Your task to perform on an android device: Turn on the flashlight Image 0: 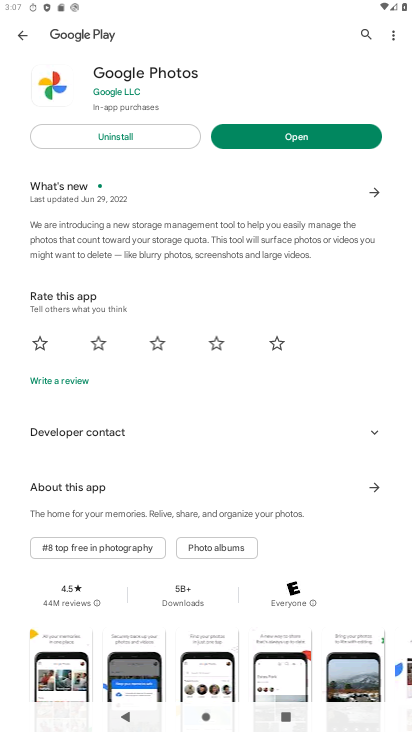
Step 0: press home button
Your task to perform on an android device: Turn on the flashlight Image 1: 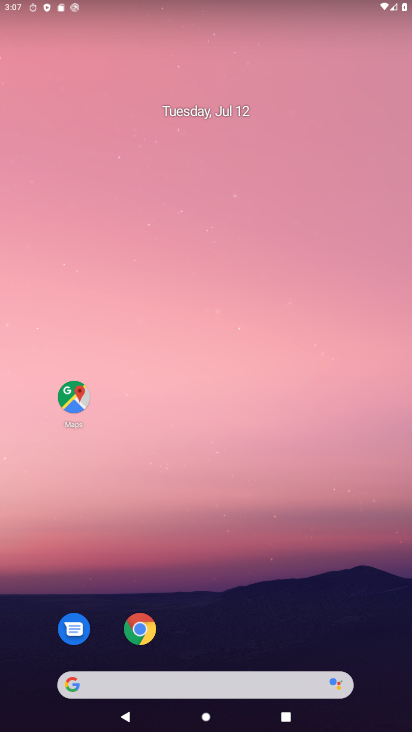
Step 1: task complete